Your task to perform on an android device: turn off notifications in google photos Image 0: 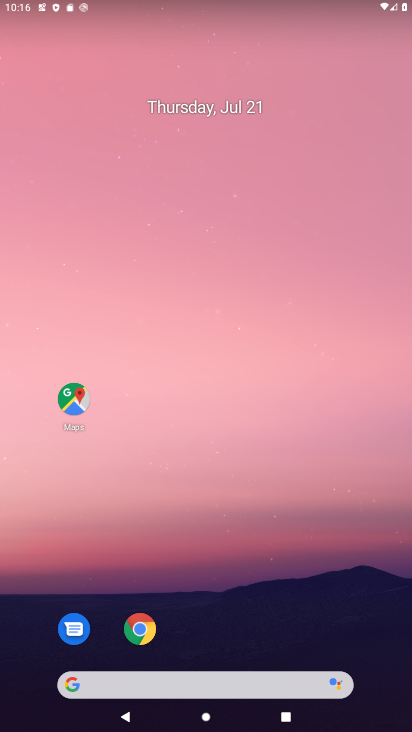
Step 0: press home button
Your task to perform on an android device: turn off notifications in google photos Image 1: 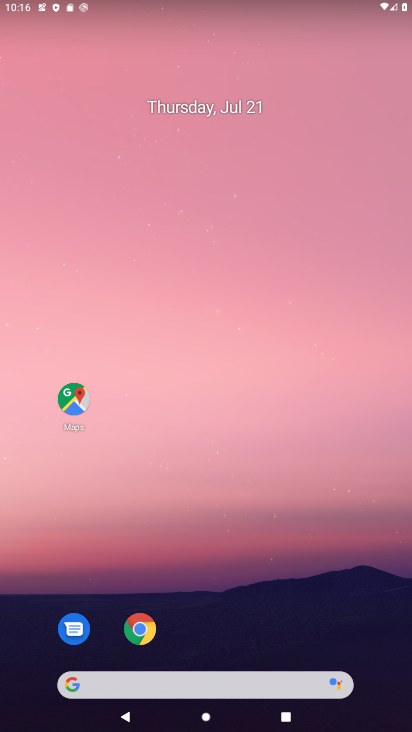
Step 1: drag from (306, 601) to (260, 198)
Your task to perform on an android device: turn off notifications in google photos Image 2: 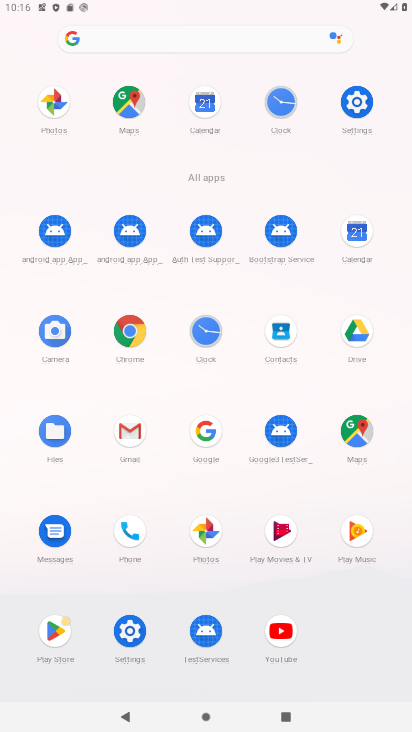
Step 2: click (203, 530)
Your task to perform on an android device: turn off notifications in google photos Image 3: 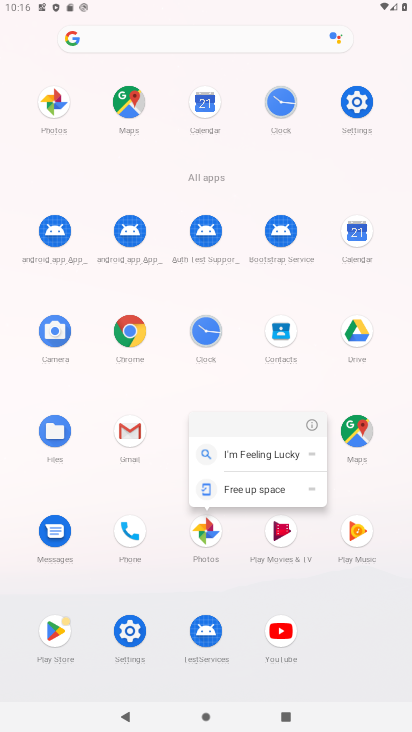
Step 3: click (200, 555)
Your task to perform on an android device: turn off notifications in google photos Image 4: 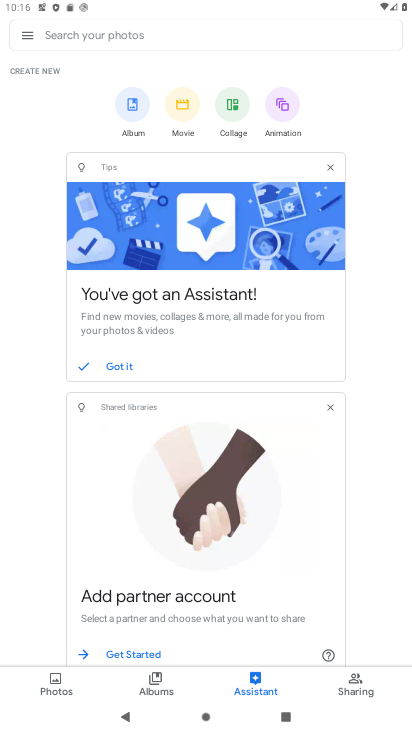
Step 4: click (25, 32)
Your task to perform on an android device: turn off notifications in google photos Image 5: 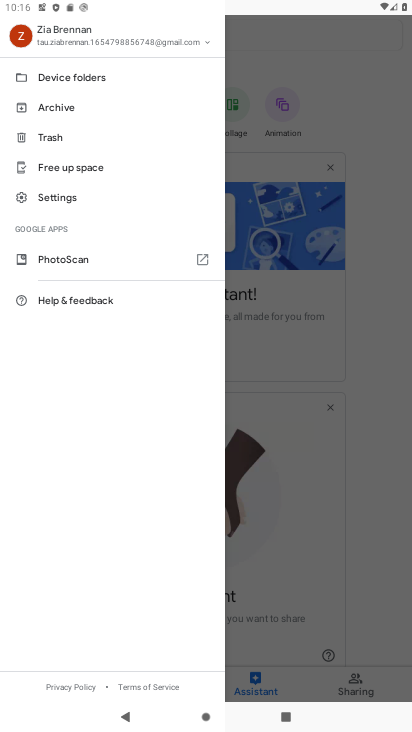
Step 5: click (54, 198)
Your task to perform on an android device: turn off notifications in google photos Image 6: 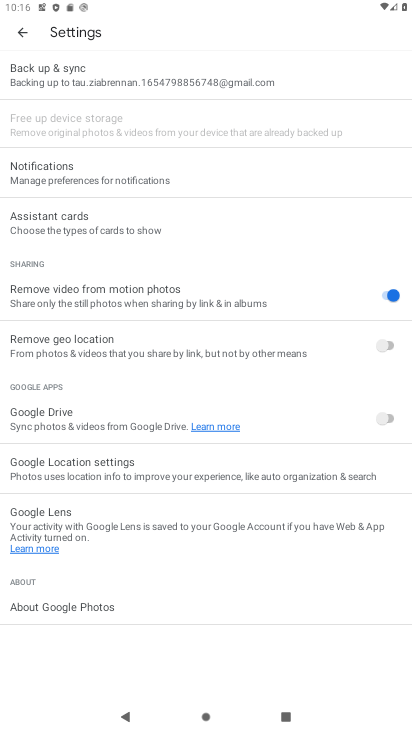
Step 6: click (59, 182)
Your task to perform on an android device: turn off notifications in google photos Image 7: 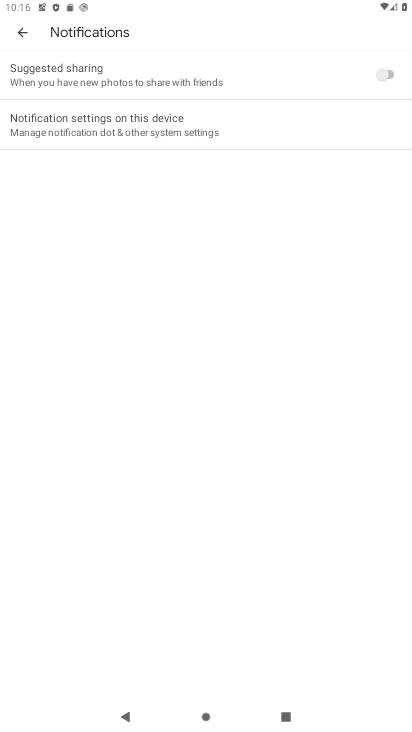
Step 7: click (90, 130)
Your task to perform on an android device: turn off notifications in google photos Image 8: 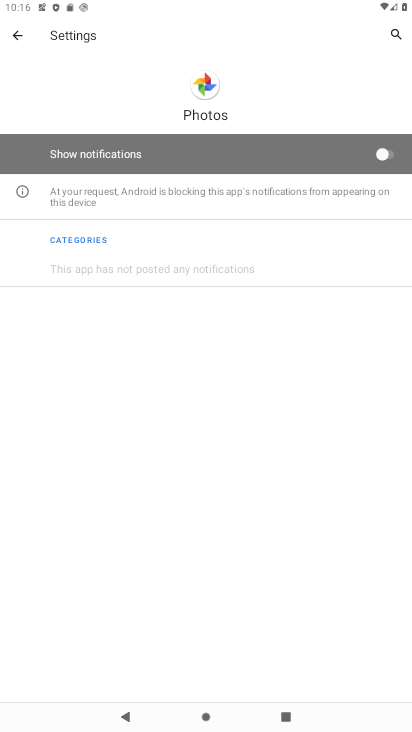
Step 8: task complete